Your task to perform on an android device: open wifi settings Image 0: 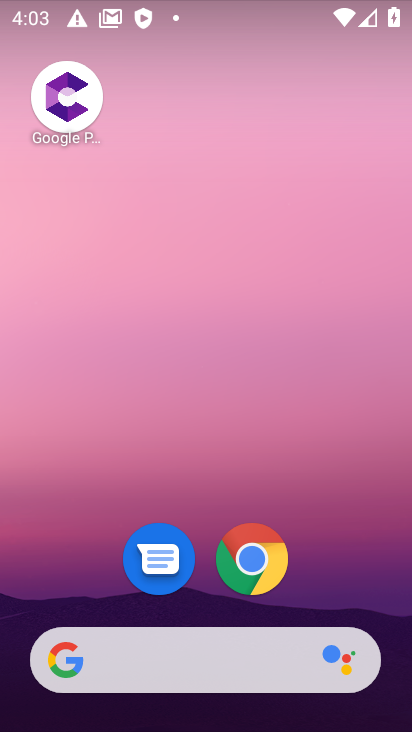
Step 0: drag from (240, 608) to (236, 167)
Your task to perform on an android device: open wifi settings Image 1: 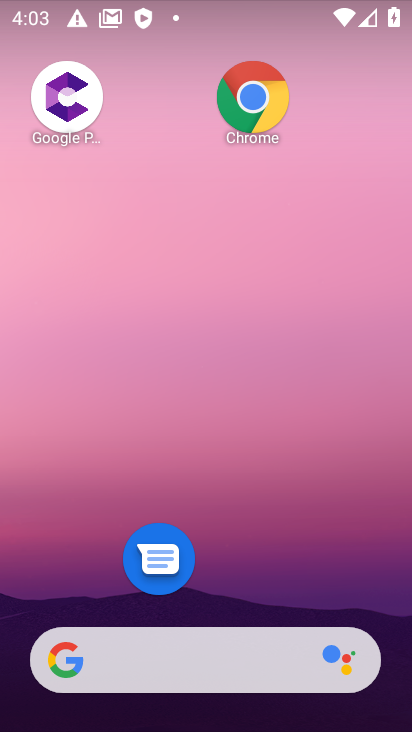
Step 1: drag from (243, 636) to (205, 207)
Your task to perform on an android device: open wifi settings Image 2: 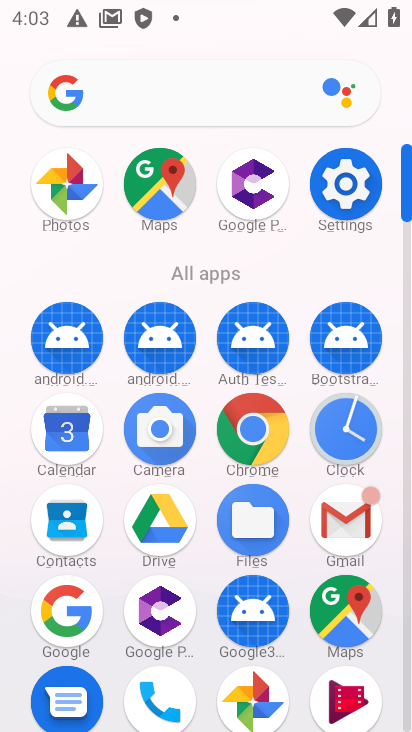
Step 2: click (343, 193)
Your task to perform on an android device: open wifi settings Image 3: 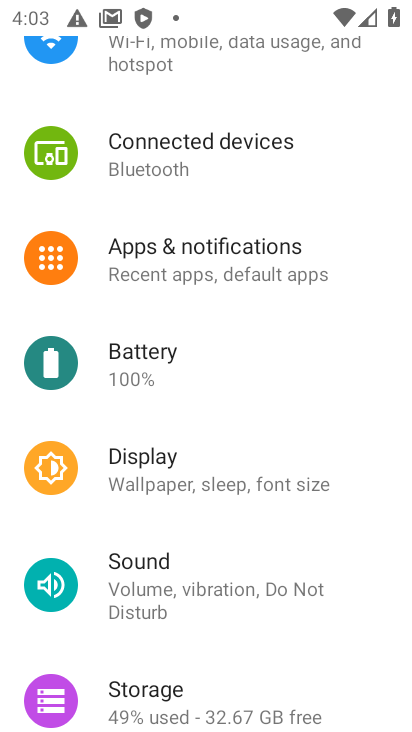
Step 3: drag from (194, 101) to (241, 536)
Your task to perform on an android device: open wifi settings Image 4: 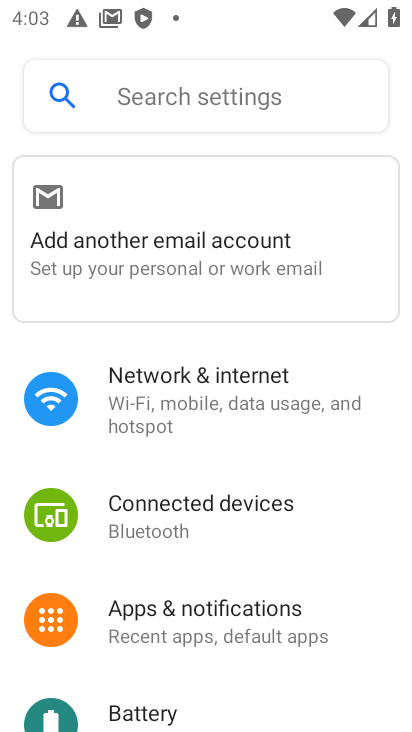
Step 4: click (194, 399)
Your task to perform on an android device: open wifi settings Image 5: 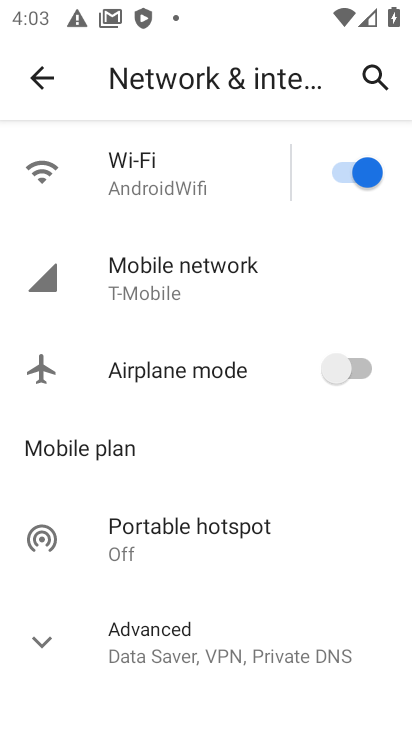
Step 5: click (223, 175)
Your task to perform on an android device: open wifi settings Image 6: 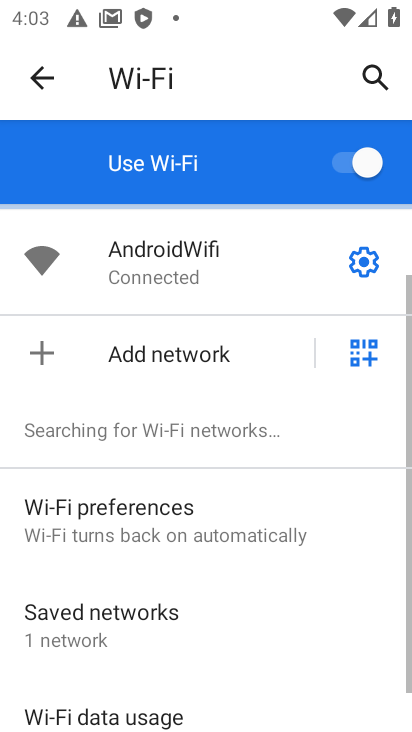
Step 6: click (375, 252)
Your task to perform on an android device: open wifi settings Image 7: 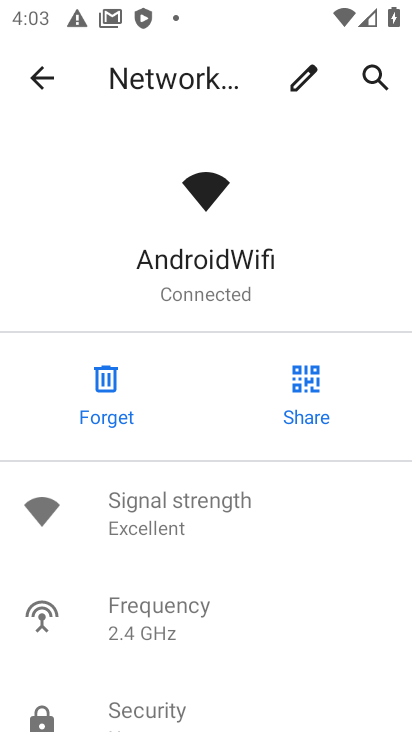
Step 7: drag from (175, 646) to (161, 195)
Your task to perform on an android device: open wifi settings Image 8: 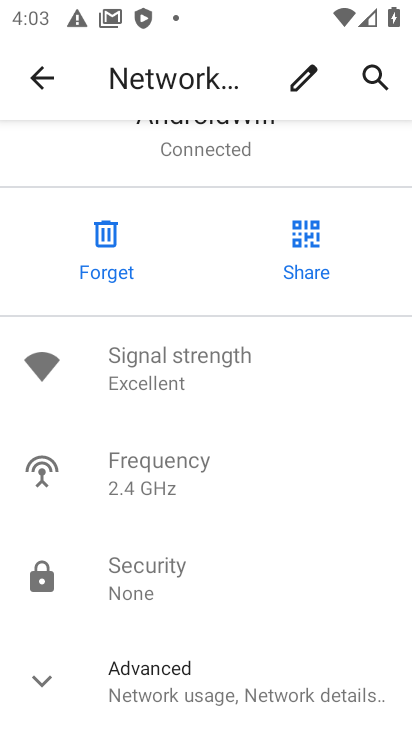
Step 8: click (108, 662)
Your task to perform on an android device: open wifi settings Image 9: 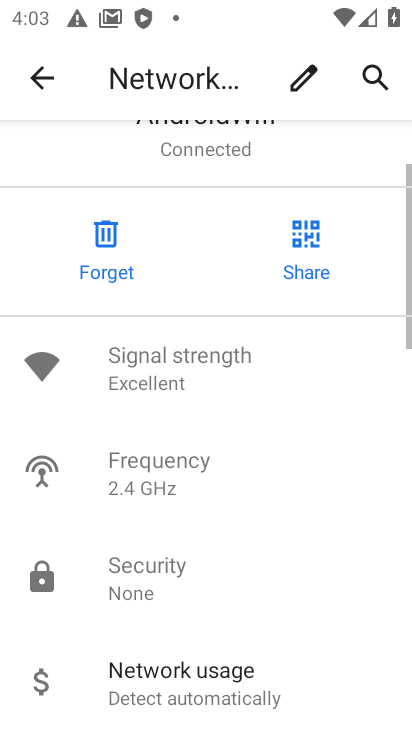
Step 9: task complete